Your task to perform on an android device: Open privacy settings Image 0: 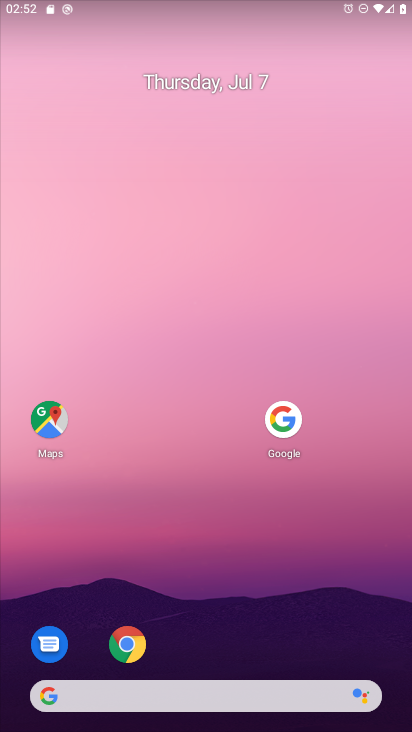
Step 0: drag from (190, 690) to (333, 0)
Your task to perform on an android device: Open privacy settings Image 1: 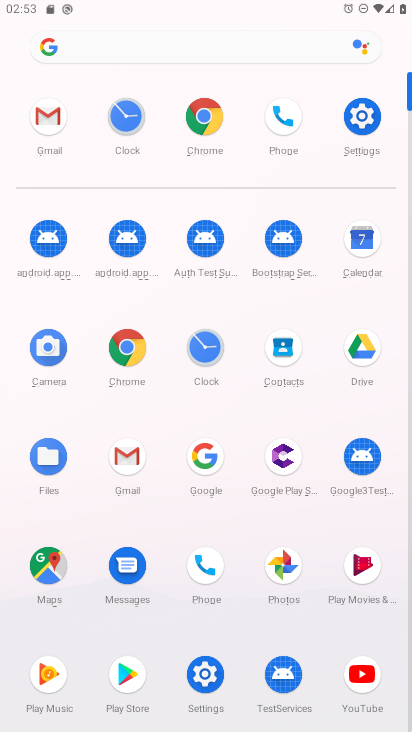
Step 1: click (356, 119)
Your task to perform on an android device: Open privacy settings Image 2: 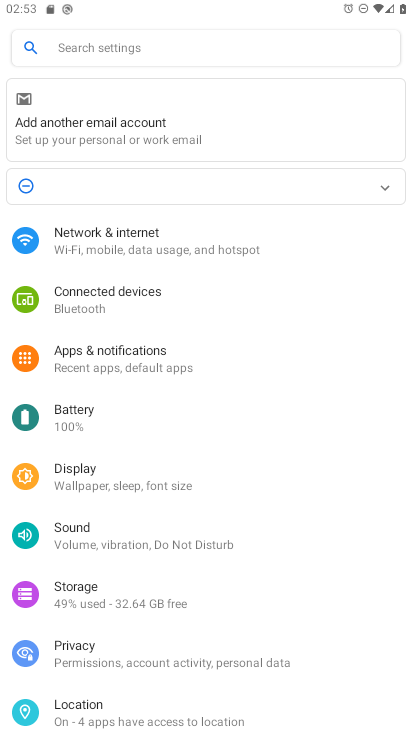
Step 2: click (89, 651)
Your task to perform on an android device: Open privacy settings Image 3: 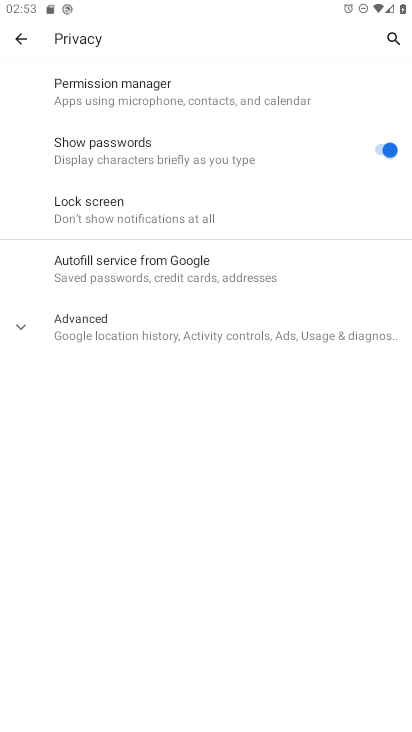
Step 3: task complete